Your task to perform on an android device: When is my next meeting? Image 0: 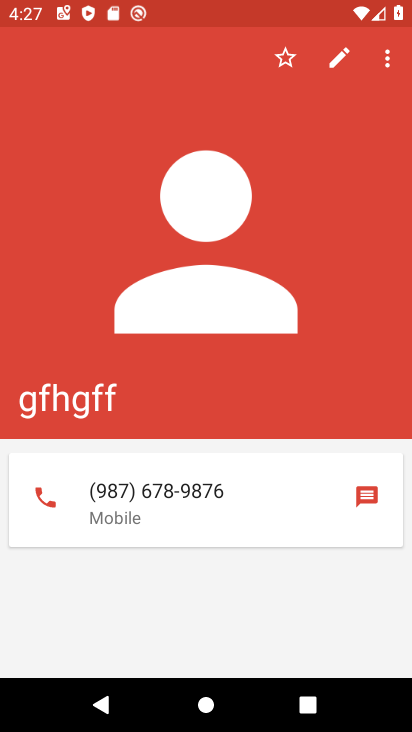
Step 0: press home button
Your task to perform on an android device: When is my next meeting? Image 1: 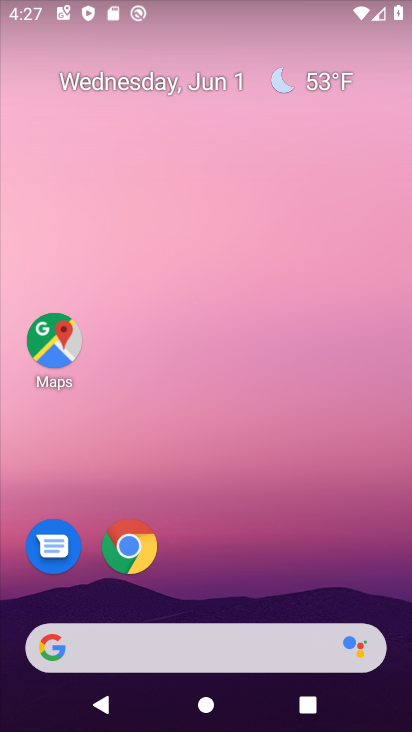
Step 1: drag from (237, 524) to (116, 55)
Your task to perform on an android device: When is my next meeting? Image 2: 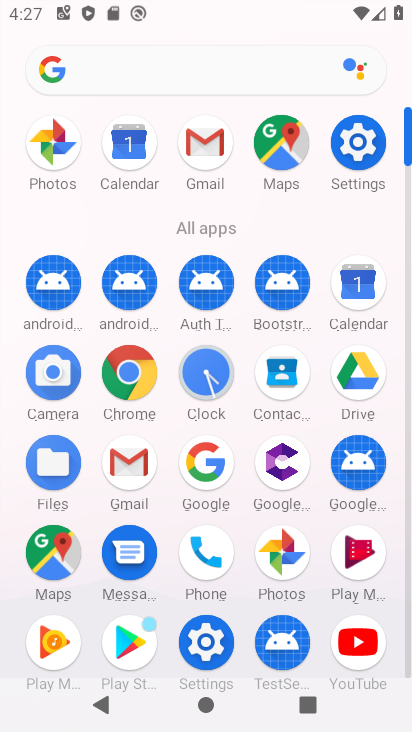
Step 2: click (359, 282)
Your task to perform on an android device: When is my next meeting? Image 3: 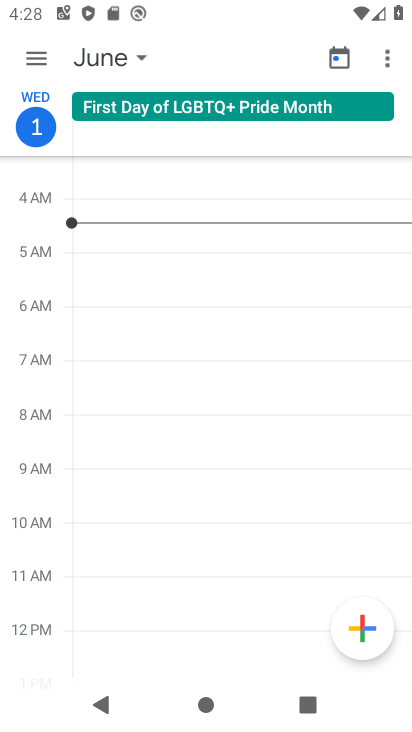
Step 3: click (136, 55)
Your task to perform on an android device: When is my next meeting? Image 4: 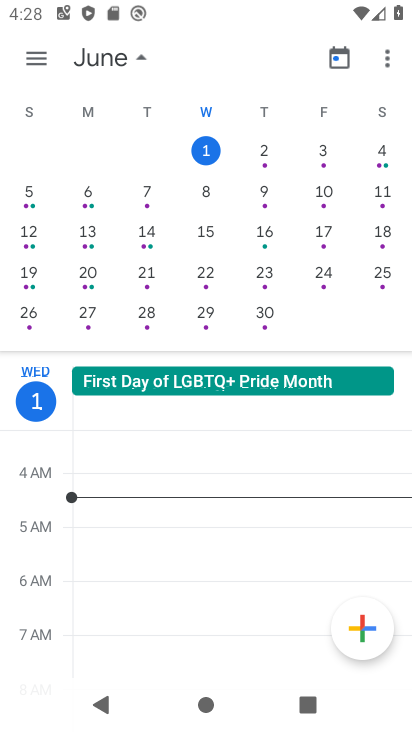
Step 4: click (139, 56)
Your task to perform on an android device: When is my next meeting? Image 5: 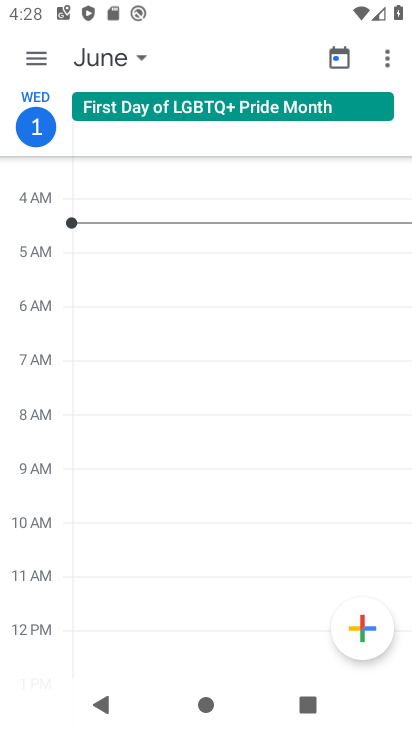
Step 5: drag from (272, 244) to (409, 280)
Your task to perform on an android device: When is my next meeting? Image 6: 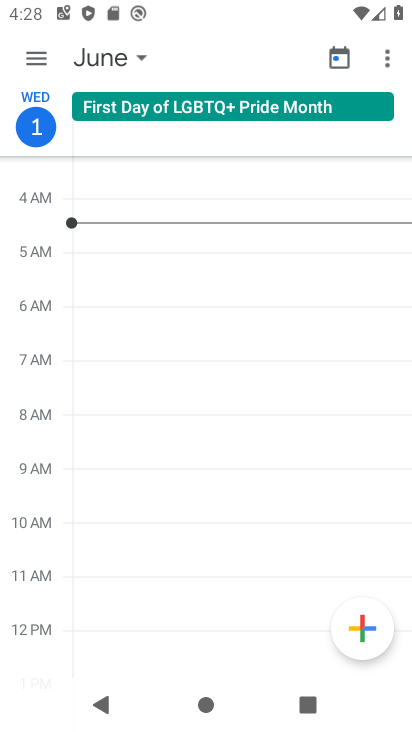
Step 6: click (142, 53)
Your task to perform on an android device: When is my next meeting? Image 7: 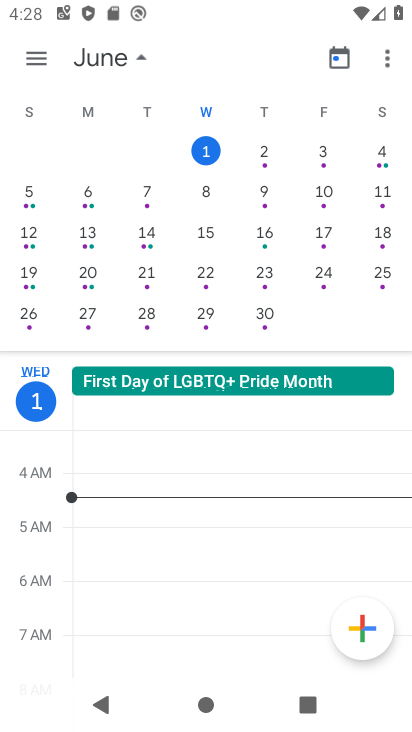
Step 7: click (137, 54)
Your task to perform on an android device: When is my next meeting? Image 8: 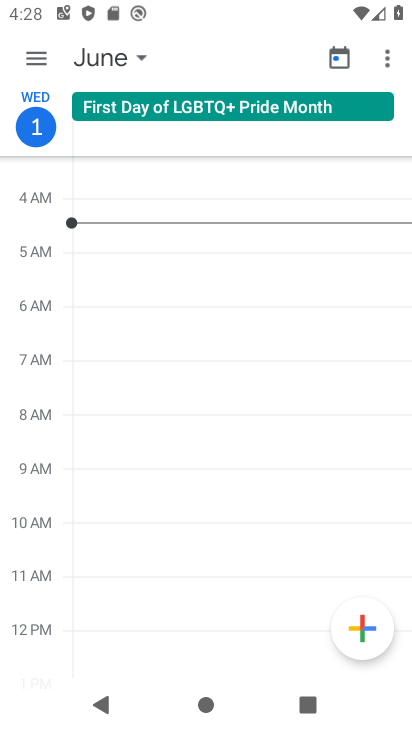
Step 8: task complete